Your task to perform on an android device: see sites visited before in the chrome app Image 0: 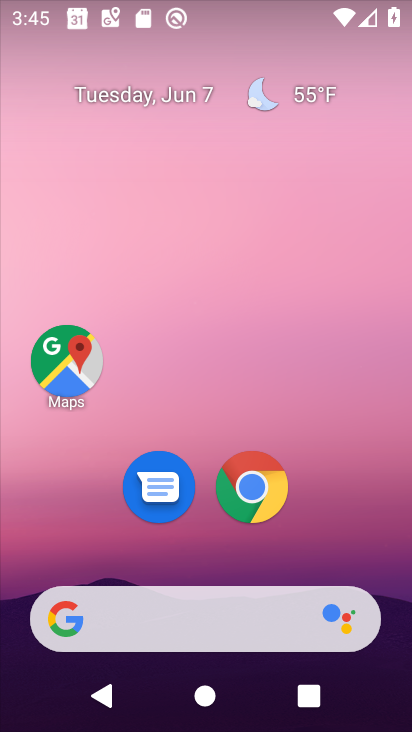
Step 0: click (251, 497)
Your task to perform on an android device: see sites visited before in the chrome app Image 1: 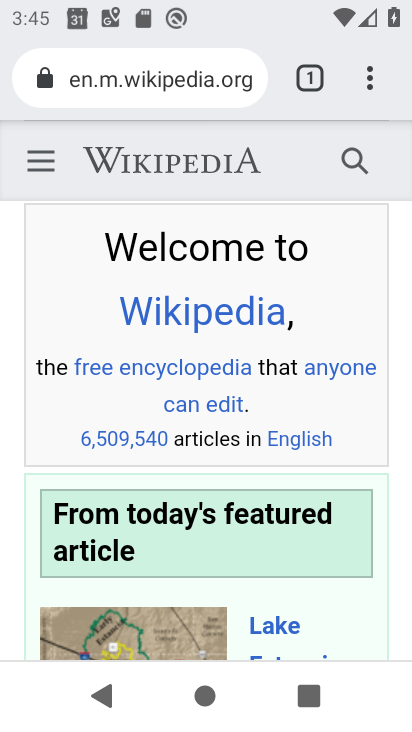
Step 1: click (358, 85)
Your task to perform on an android device: see sites visited before in the chrome app Image 2: 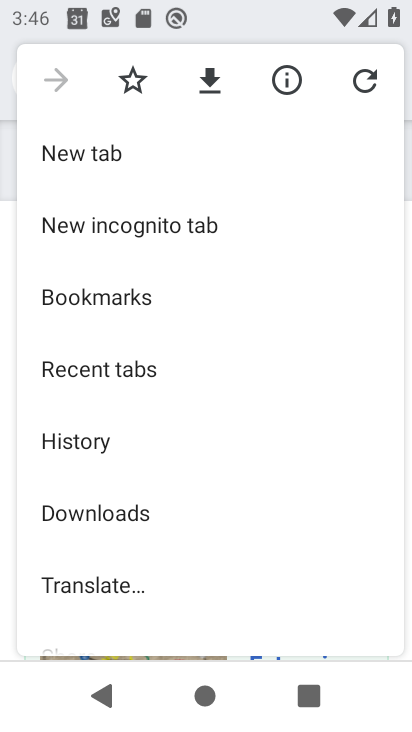
Step 2: drag from (187, 524) to (234, 246)
Your task to perform on an android device: see sites visited before in the chrome app Image 3: 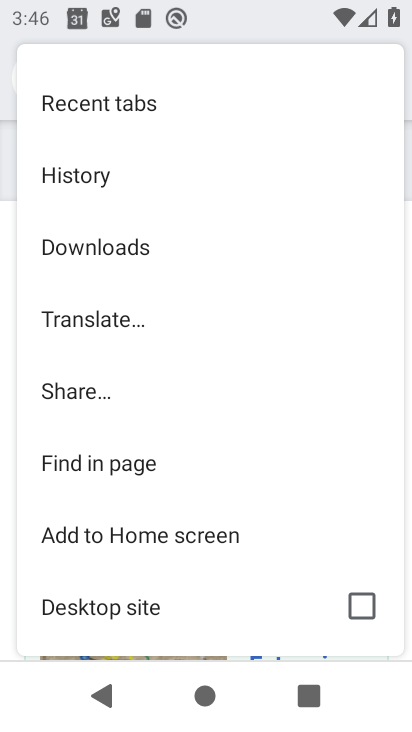
Step 3: click (117, 178)
Your task to perform on an android device: see sites visited before in the chrome app Image 4: 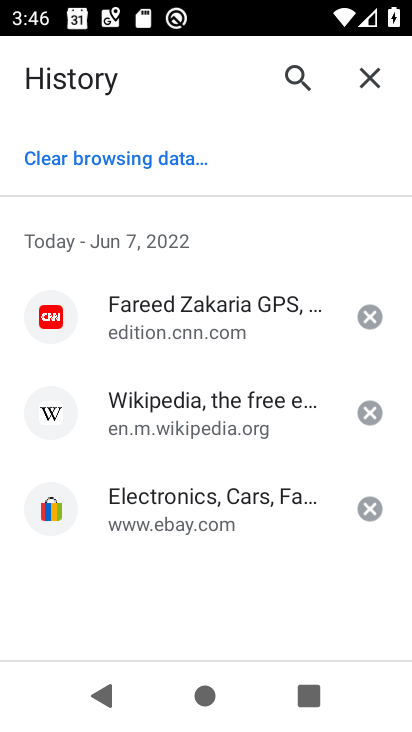
Step 4: task complete